Your task to perform on an android device: turn on translation in the chrome app Image 0: 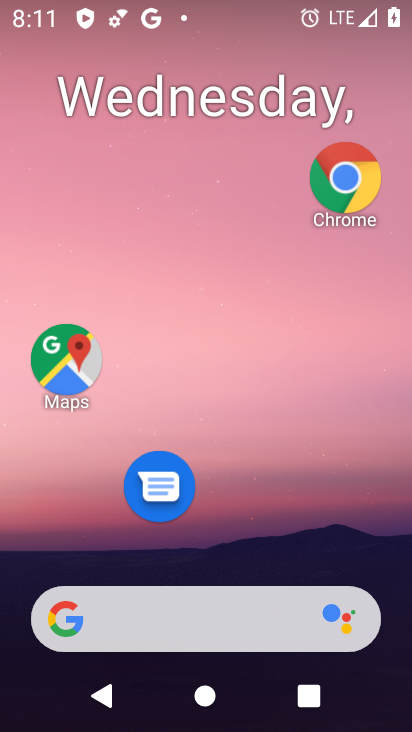
Step 0: drag from (274, 573) to (292, 93)
Your task to perform on an android device: turn on translation in the chrome app Image 1: 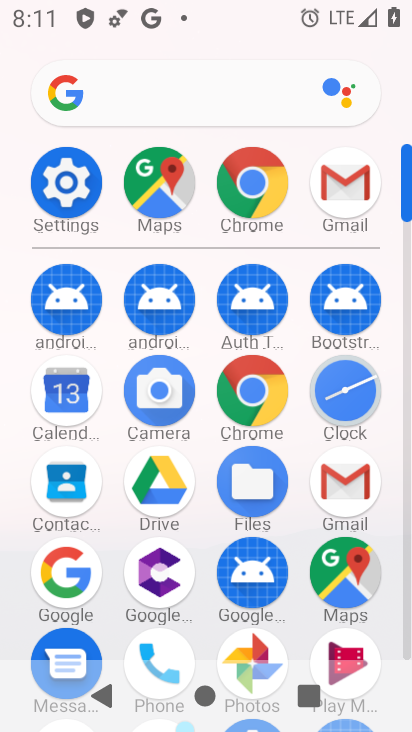
Step 1: click (276, 200)
Your task to perform on an android device: turn on translation in the chrome app Image 2: 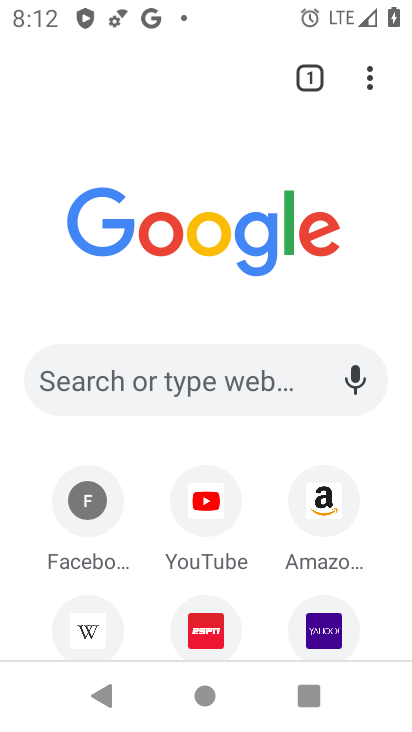
Step 2: click (373, 84)
Your task to perform on an android device: turn on translation in the chrome app Image 3: 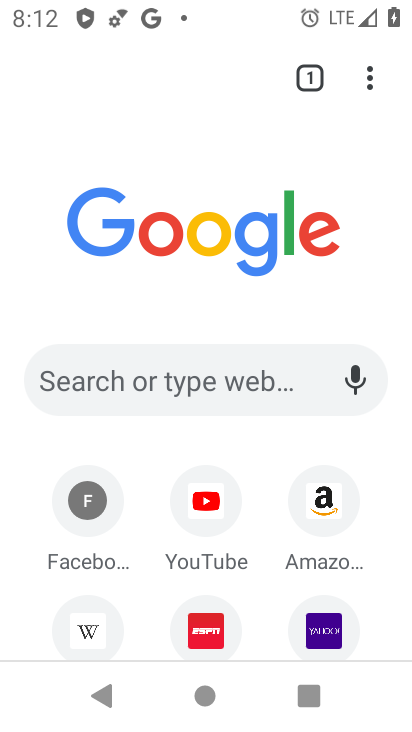
Step 3: click (371, 86)
Your task to perform on an android device: turn on translation in the chrome app Image 4: 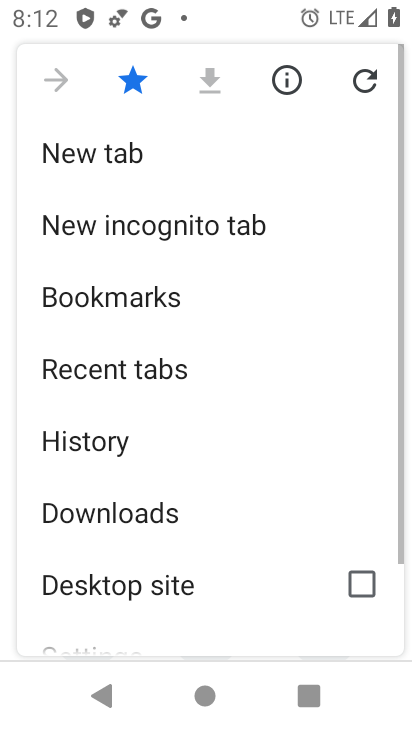
Step 4: drag from (201, 556) to (246, 253)
Your task to perform on an android device: turn on translation in the chrome app Image 5: 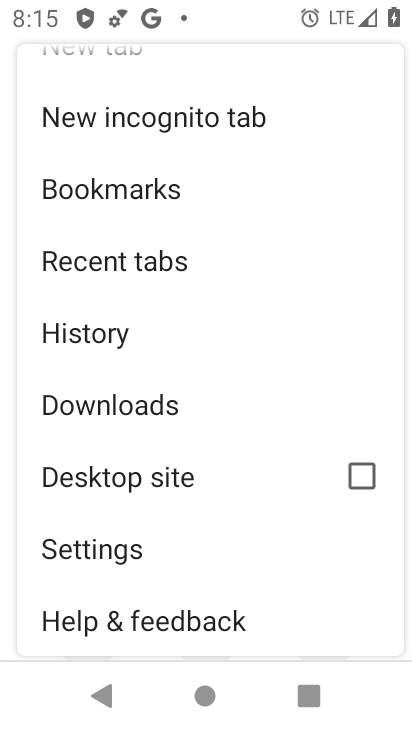
Step 5: press home button
Your task to perform on an android device: turn on translation in the chrome app Image 6: 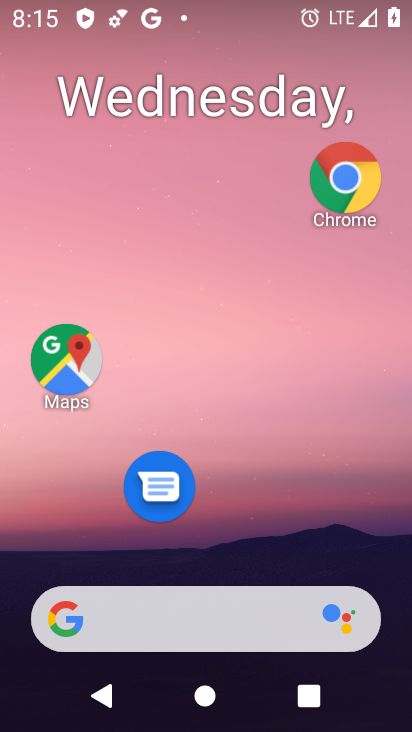
Step 6: drag from (160, 667) to (346, 141)
Your task to perform on an android device: turn on translation in the chrome app Image 7: 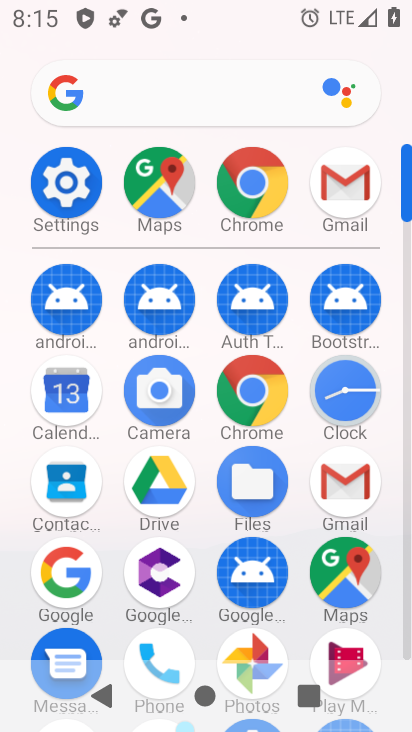
Step 7: click (267, 209)
Your task to perform on an android device: turn on translation in the chrome app Image 8: 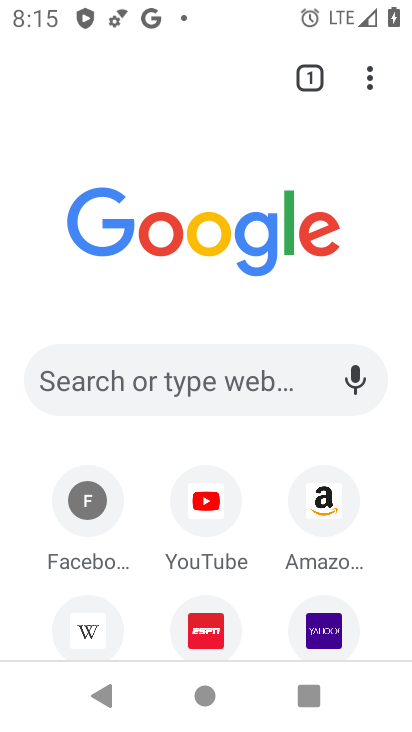
Step 8: click (364, 80)
Your task to perform on an android device: turn on translation in the chrome app Image 9: 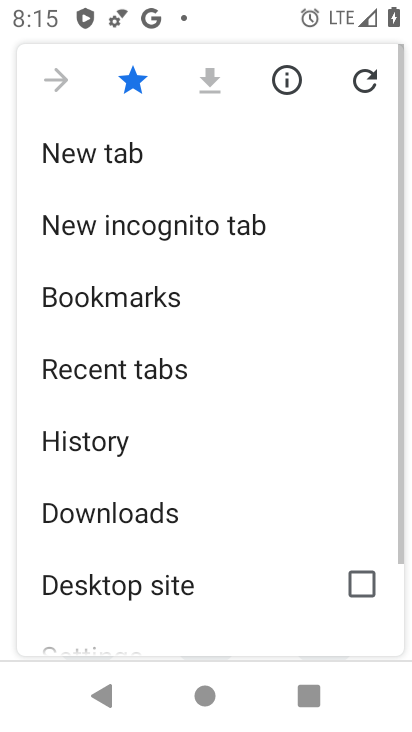
Step 9: task complete